Your task to perform on an android device: turn on showing notifications on the lock screen Image 0: 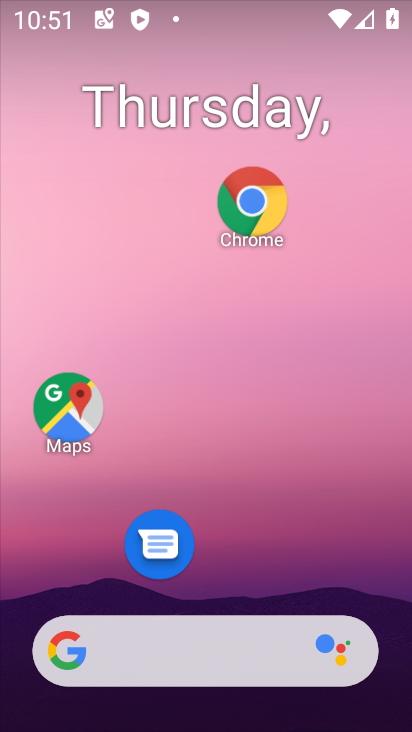
Step 0: press home button
Your task to perform on an android device: turn on showing notifications on the lock screen Image 1: 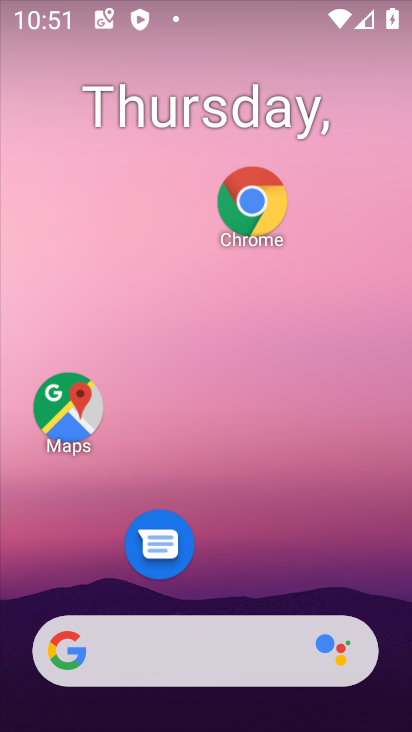
Step 1: drag from (225, 596) to (234, 75)
Your task to perform on an android device: turn on showing notifications on the lock screen Image 2: 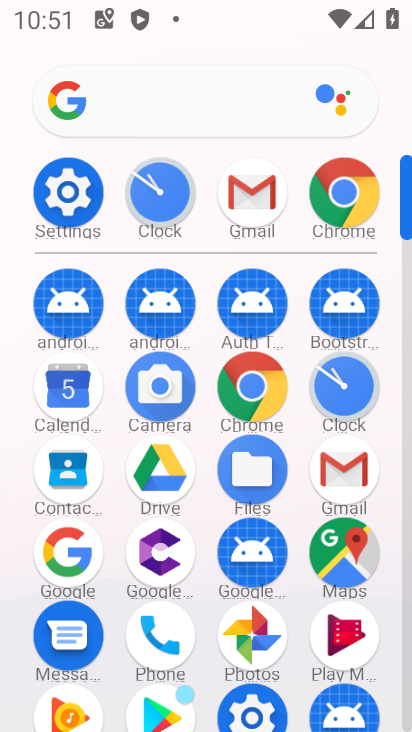
Step 2: click (69, 190)
Your task to perform on an android device: turn on showing notifications on the lock screen Image 3: 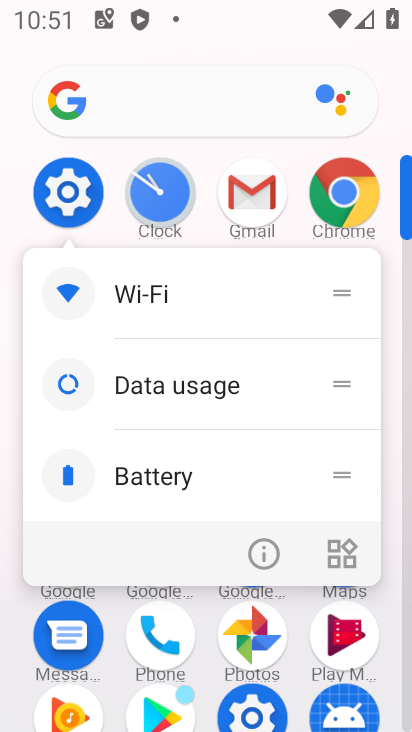
Step 3: click (64, 187)
Your task to perform on an android device: turn on showing notifications on the lock screen Image 4: 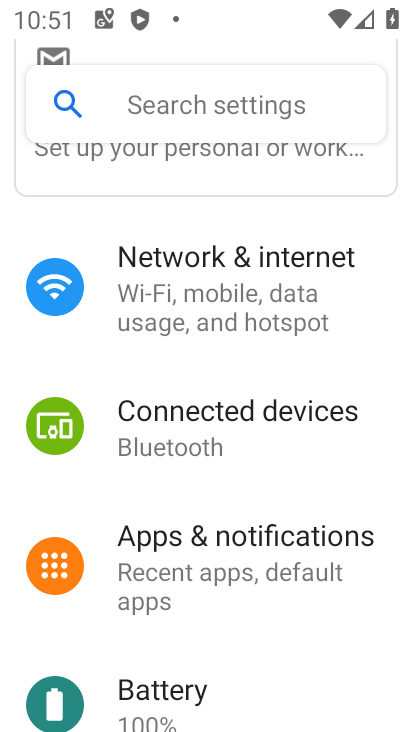
Step 4: click (212, 553)
Your task to perform on an android device: turn on showing notifications on the lock screen Image 5: 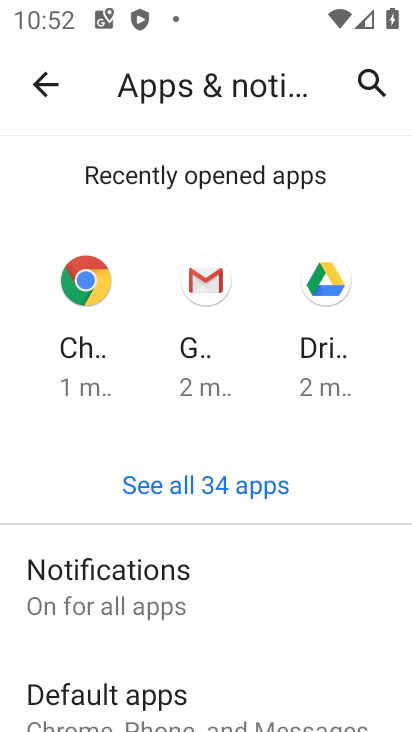
Step 5: click (202, 589)
Your task to perform on an android device: turn on showing notifications on the lock screen Image 6: 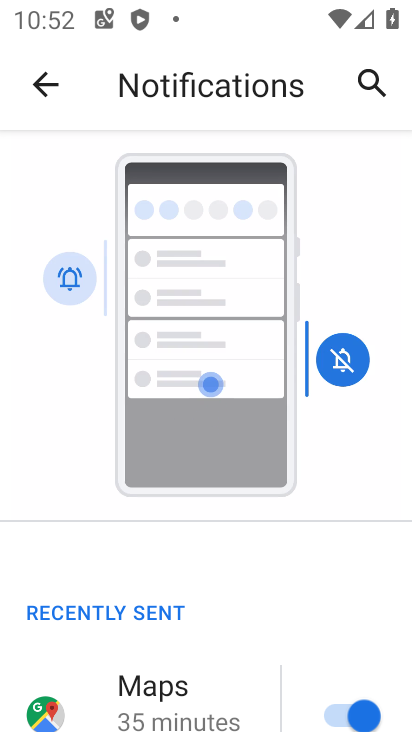
Step 6: drag from (237, 654) to (250, 269)
Your task to perform on an android device: turn on showing notifications on the lock screen Image 7: 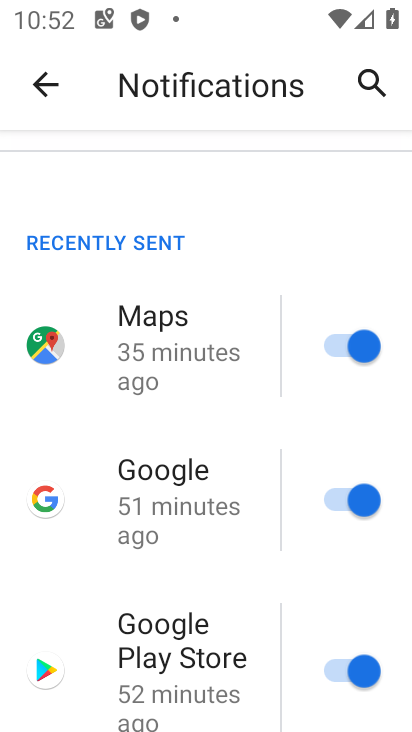
Step 7: drag from (260, 674) to (257, 180)
Your task to perform on an android device: turn on showing notifications on the lock screen Image 8: 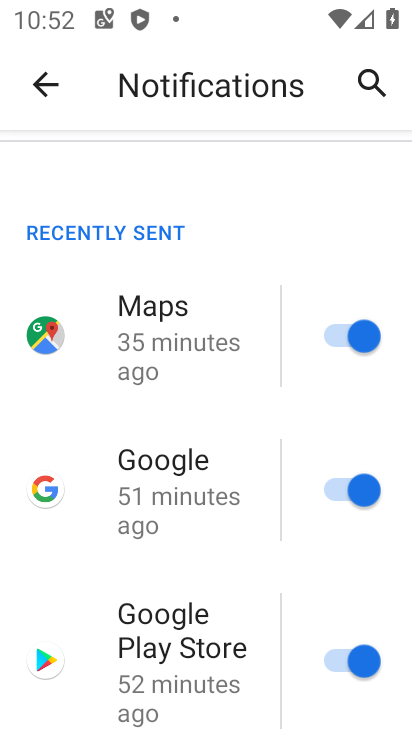
Step 8: drag from (230, 689) to (245, 102)
Your task to perform on an android device: turn on showing notifications on the lock screen Image 9: 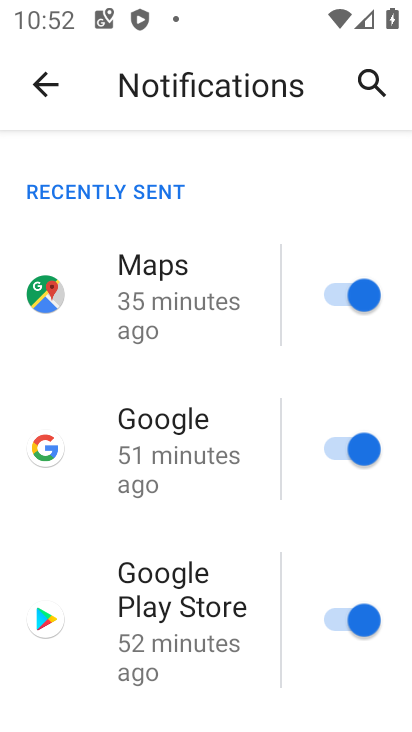
Step 9: drag from (100, 550) to (143, 45)
Your task to perform on an android device: turn on showing notifications on the lock screen Image 10: 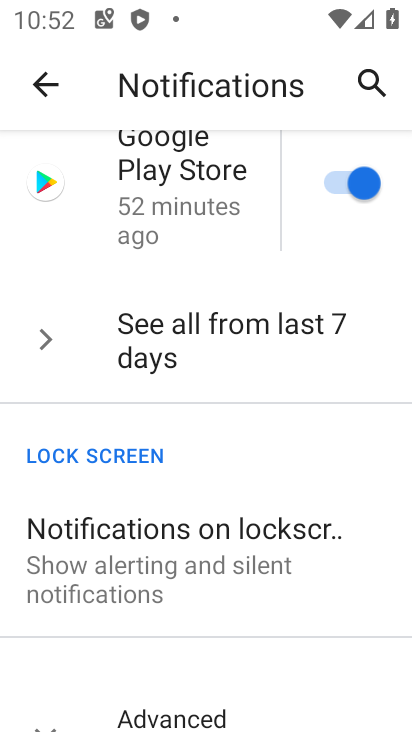
Step 10: click (220, 556)
Your task to perform on an android device: turn on showing notifications on the lock screen Image 11: 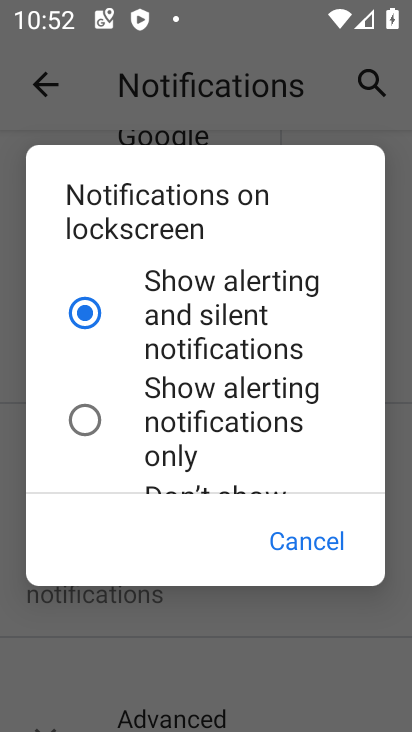
Step 11: task complete